Your task to perform on an android device: manage bookmarks in the chrome app Image 0: 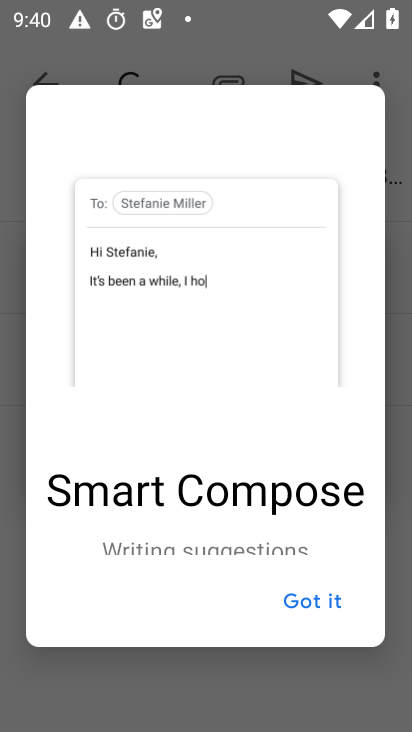
Step 0: press home button
Your task to perform on an android device: manage bookmarks in the chrome app Image 1: 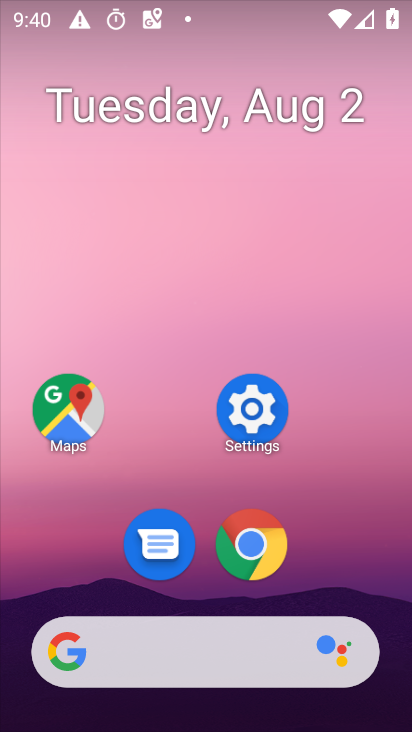
Step 1: click (244, 544)
Your task to perform on an android device: manage bookmarks in the chrome app Image 2: 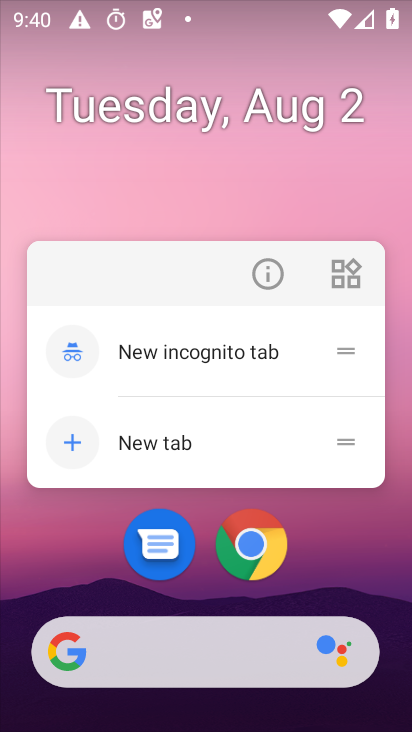
Step 2: click (255, 544)
Your task to perform on an android device: manage bookmarks in the chrome app Image 3: 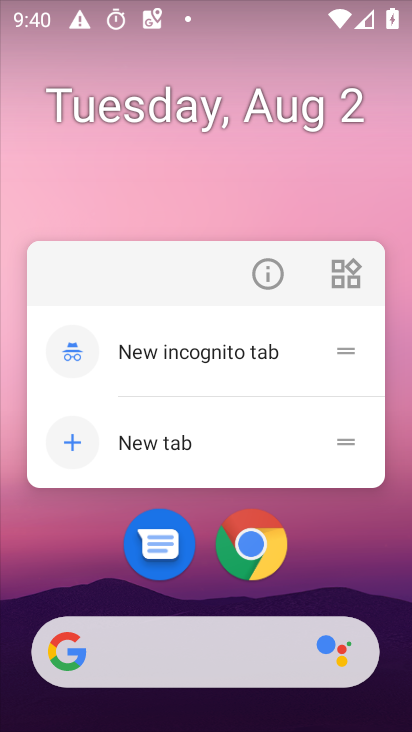
Step 3: click (255, 545)
Your task to perform on an android device: manage bookmarks in the chrome app Image 4: 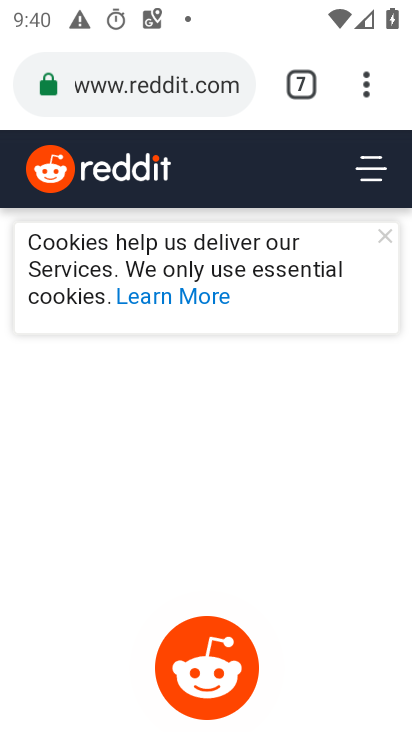
Step 4: drag from (372, 82) to (168, 328)
Your task to perform on an android device: manage bookmarks in the chrome app Image 5: 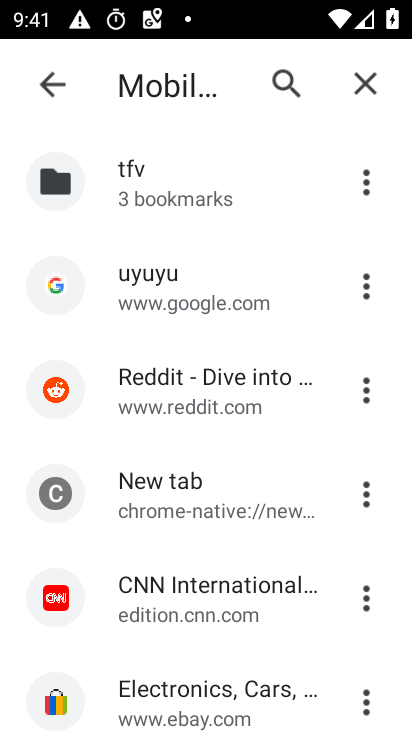
Step 5: click (366, 283)
Your task to perform on an android device: manage bookmarks in the chrome app Image 6: 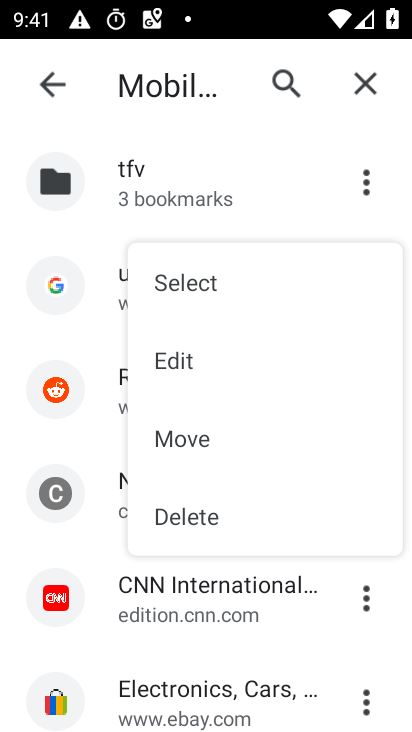
Step 6: click (212, 439)
Your task to perform on an android device: manage bookmarks in the chrome app Image 7: 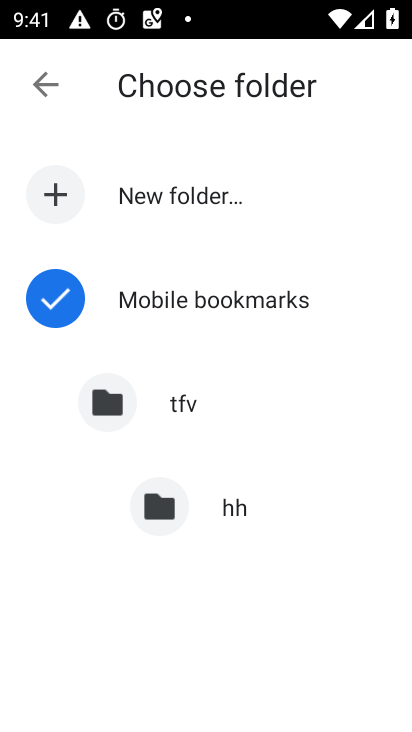
Step 7: click (176, 403)
Your task to perform on an android device: manage bookmarks in the chrome app Image 8: 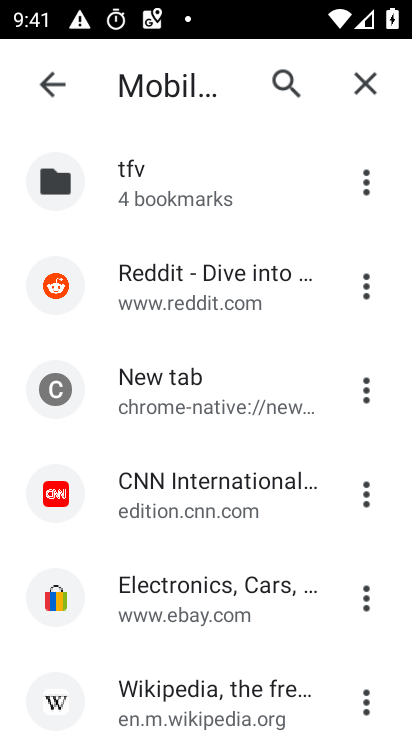
Step 8: task complete